Your task to perform on an android device: turn smart compose on in the gmail app Image 0: 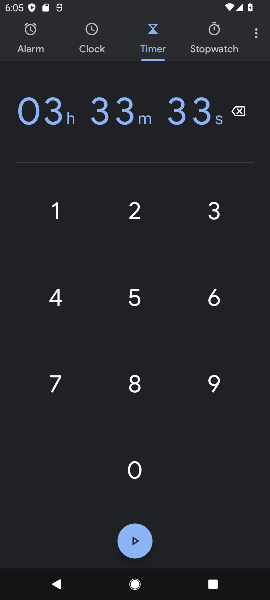
Step 0: press home button
Your task to perform on an android device: turn smart compose on in the gmail app Image 1: 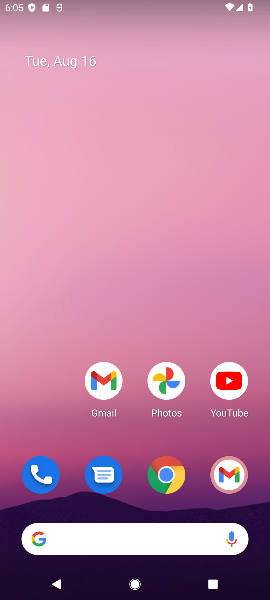
Step 1: drag from (212, 509) to (20, 1)
Your task to perform on an android device: turn smart compose on in the gmail app Image 2: 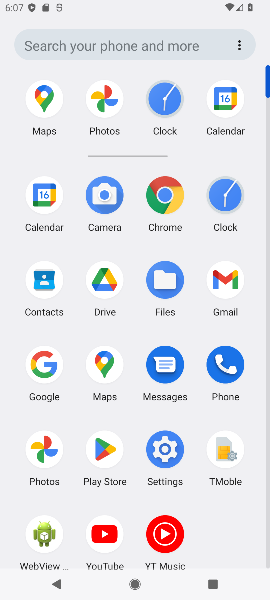
Step 2: click (225, 292)
Your task to perform on an android device: turn smart compose on in the gmail app Image 3: 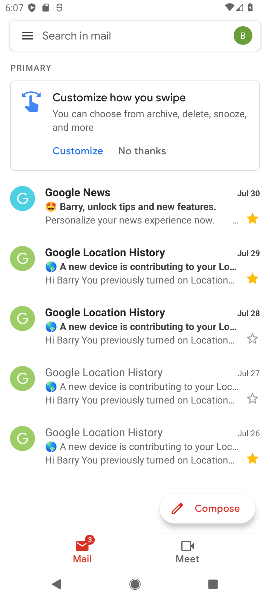
Step 3: click (8, 49)
Your task to perform on an android device: turn smart compose on in the gmail app Image 4: 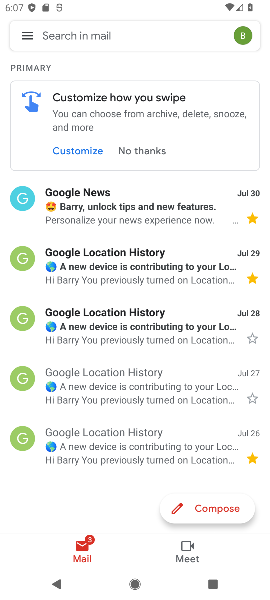
Step 4: click (22, 42)
Your task to perform on an android device: turn smart compose on in the gmail app Image 5: 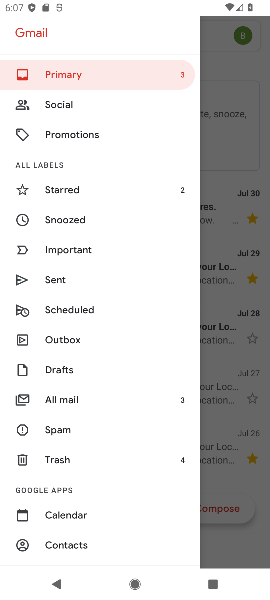
Step 5: drag from (87, 538) to (81, 146)
Your task to perform on an android device: turn smart compose on in the gmail app Image 6: 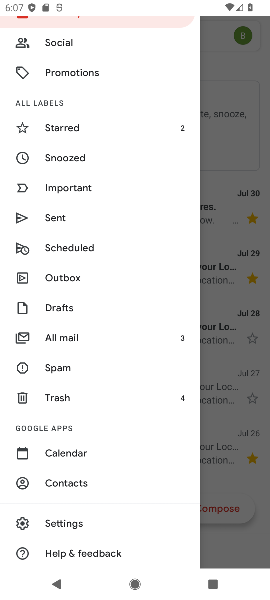
Step 6: click (62, 510)
Your task to perform on an android device: turn smart compose on in the gmail app Image 7: 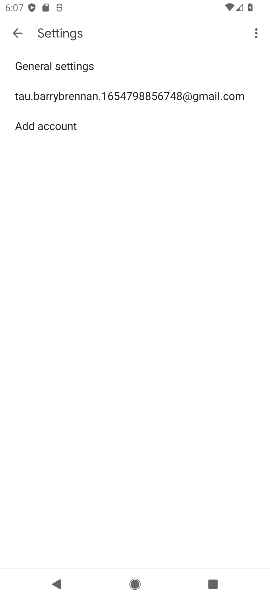
Step 7: click (87, 105)
Your task to perform on an android device: turn smart compose on in the gmail app Image 8: 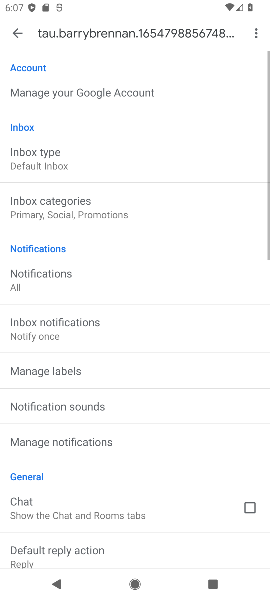
Step 8: task complete